Your task to perform on an android device: find snoozed emails in the gmail app Image 0: 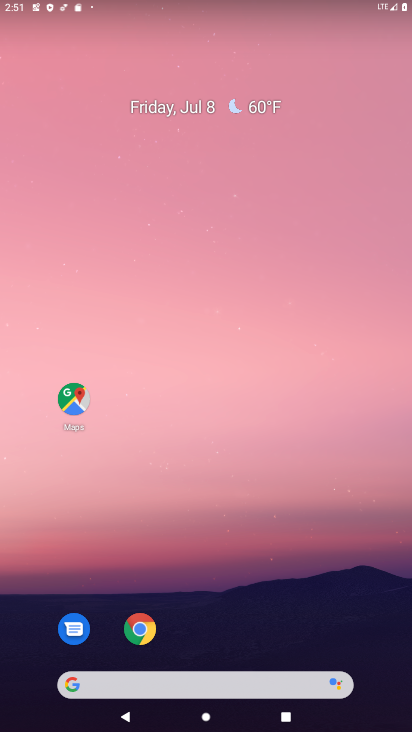
Step 0: drag from (195, 643) to (195, 147)
Your task to perform on an android device: find snoozed emails in the gmail app Image 1: 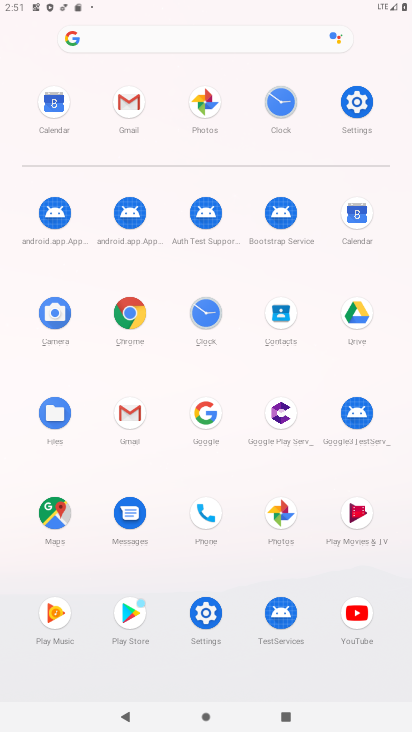
Step 1: click (120, 113)
Your task to perform on an android device: find snoozed emails in the gmail app Image 2: 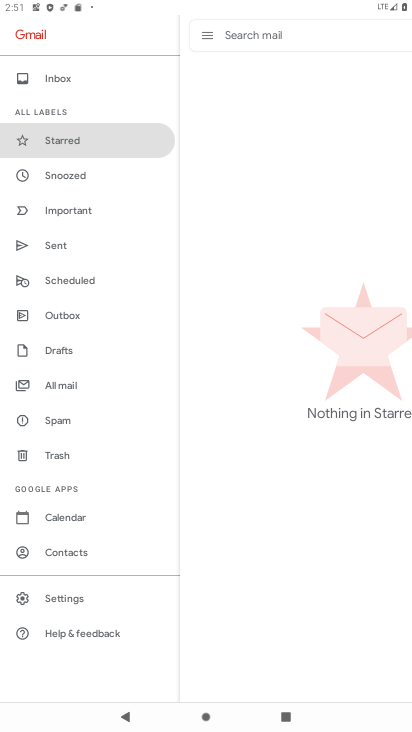
Step 2: click (99, 183)
Your task to perform on an android device: find snoozed emails in the gmail app Image 3: 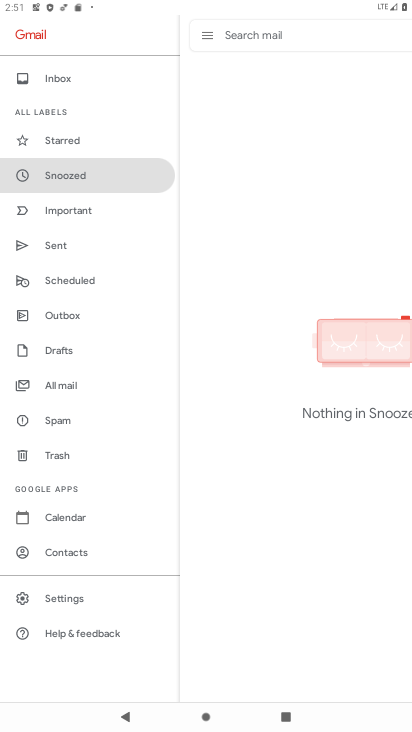
Step 3: task complete